Your task to perform on an android device: Open Yahoo.com Image 0: 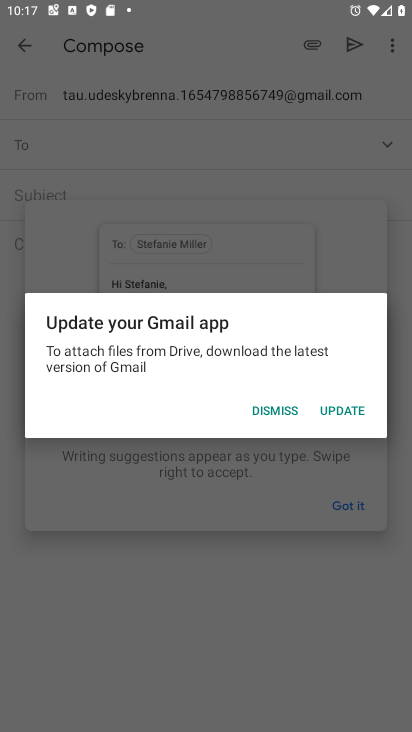
Step 0: press home button
Your task to perform on an android device: Open Yahoo.com Image 1: 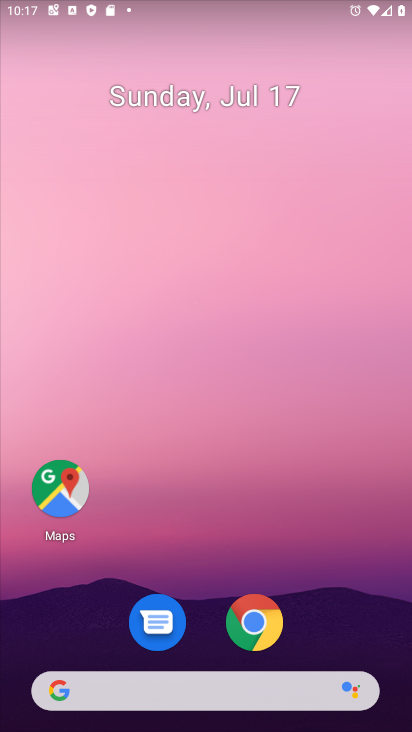
Step 1: click (276, 678)
Your task to perform on an android device: Open Yahoo.com Image 2: 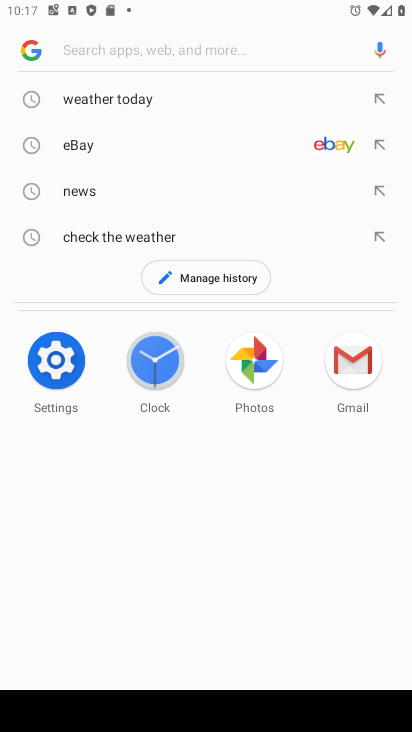
Step 2: type "yahoo.com"
Your task to perform on an android device: Open Yahoo.com Image 3: 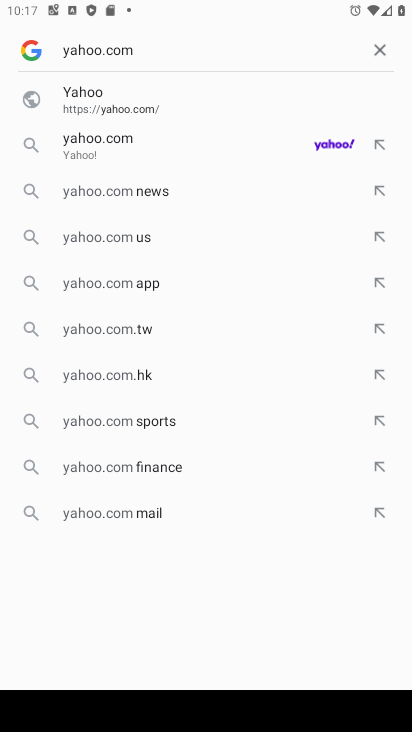
Step 3: click (107, 91)
Your task to perform on an android device: Open Yahoo.com Image 4: 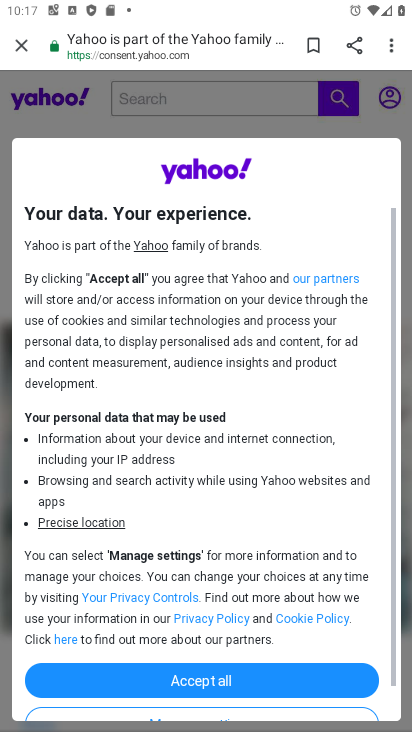
Step 4: task complete